Your task to perform on an android device: Search for seafood restaurants on Google Maps Image 0: 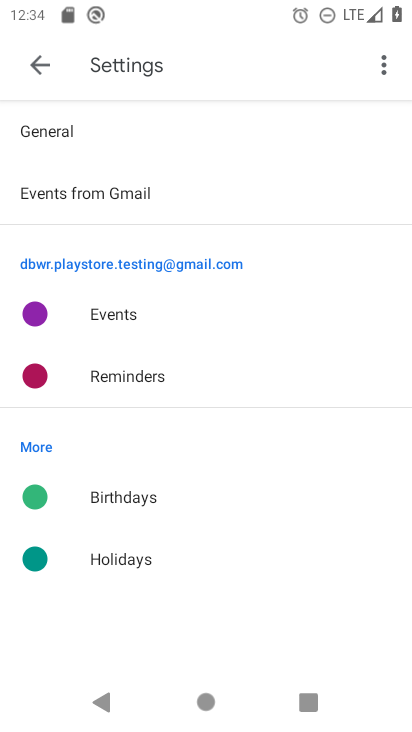
Step 0: press home button
Your task to perform on an android device: Search for seafood restaurants on Google Maps Image 1: 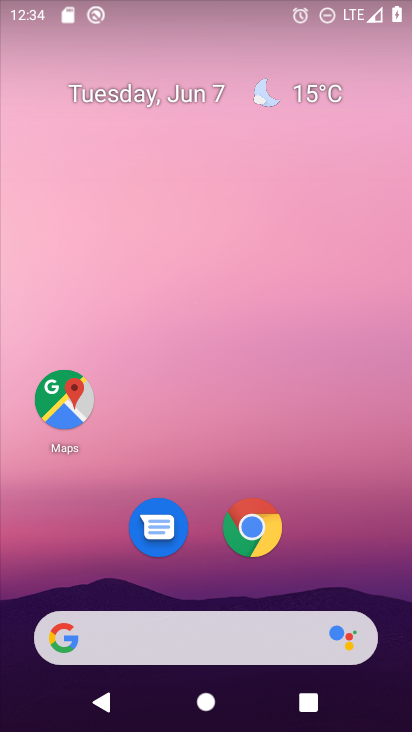
Step 1: drag from (338, 529) to (329, 112)
Your task to perform on an android device: Search for seafood restaurants on Google Maps Image 2: 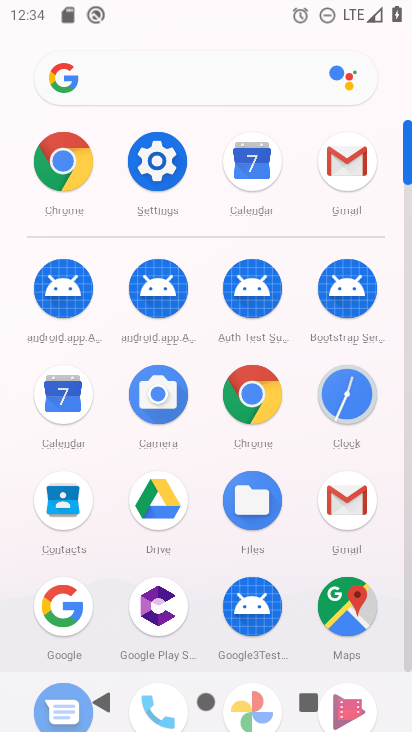
Step 2: click (356, 601)
Your task to perform on an android device: Search for seafood restaurants on Google Maps Image 3: 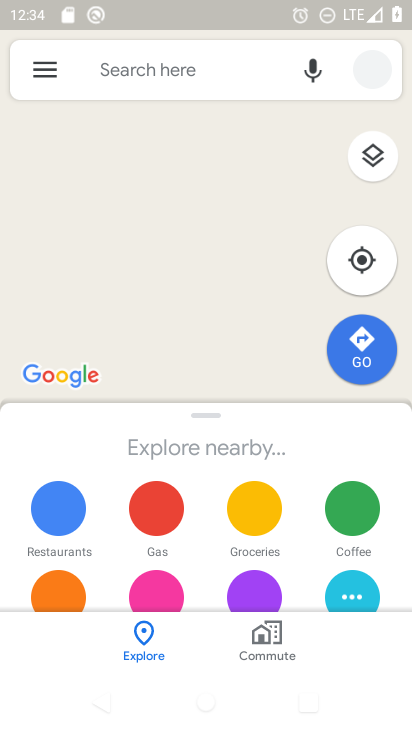
Step 3: click (216, 74)
Your task to perform on an android device: Search for seafood restaurants on Google Maps Image 4: 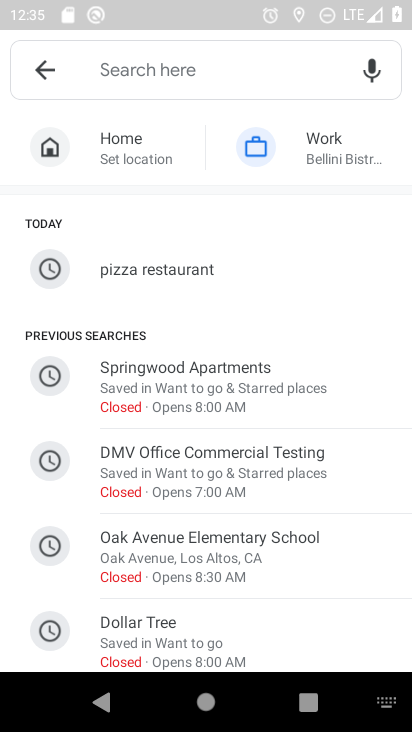
Step 4: type "seafood restaurants"
Your task to perform on an android device: Search for seafood restaurants on Google Maps Image 5: 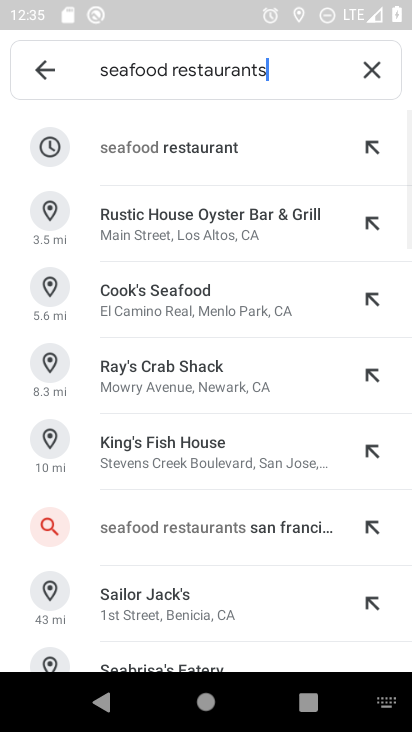
Step 5: click (176, 155)
Your task to perform on an android device: Search for seafood restaurants on Google Maps Image 6: 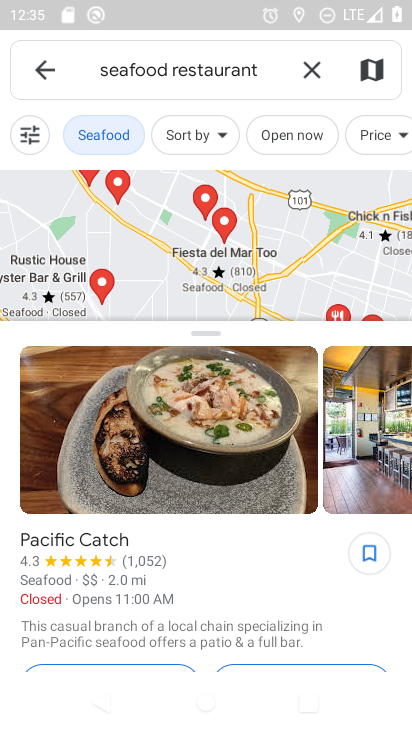
Step 6: task complete